Your task to perform on an android device: change notifications settings Image 0: 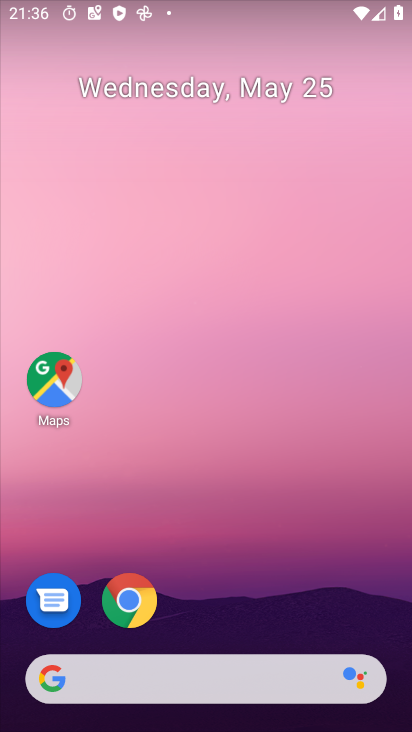
Step 0: drag from (327, 593) to (286, 160)
Your task to perform on an android device: change notifications settings Image 1: 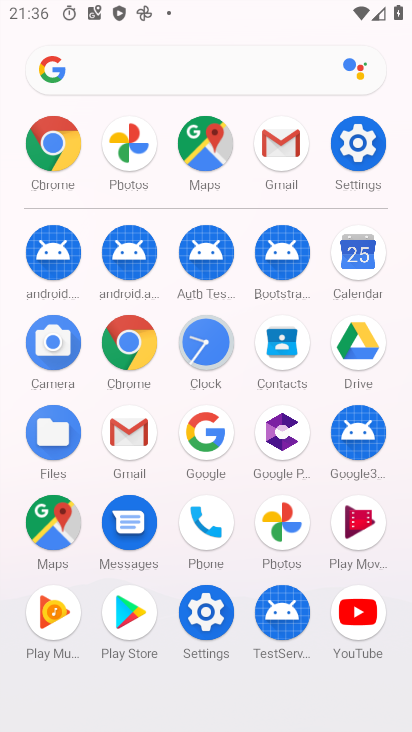
Step 1: click (191, 628)
Your task to perform on an android device: change notifications settings Image 2: 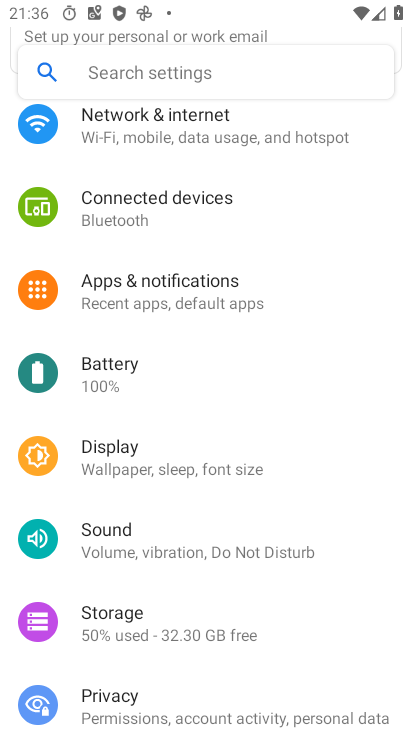
Step 2: drag from (305, 240) to (342, 650)
Your task to perform on an android device: change notifications settings Image 3: 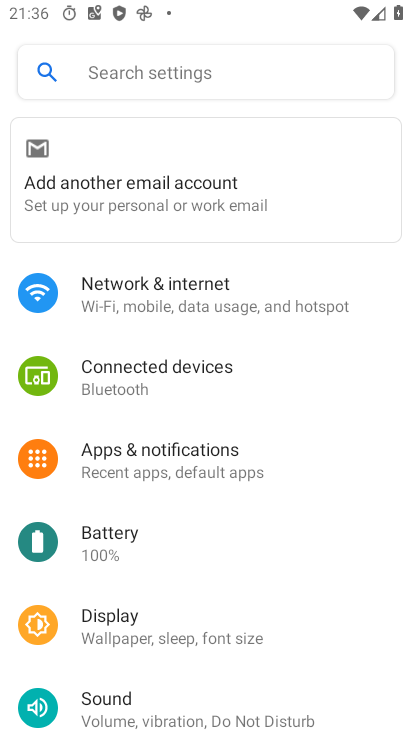
Step 3: click (249, 453)
Your task to perform on an android device: change notifications settings Image 4: 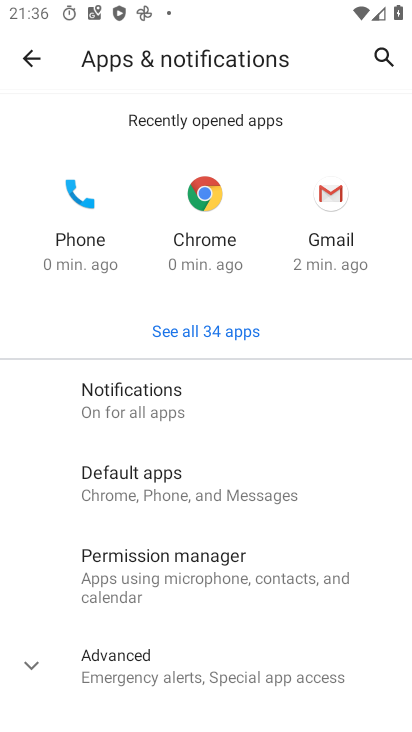
Step 4: click (187, 422)
Your task to perform on an android device: change notifications settings Image 5: 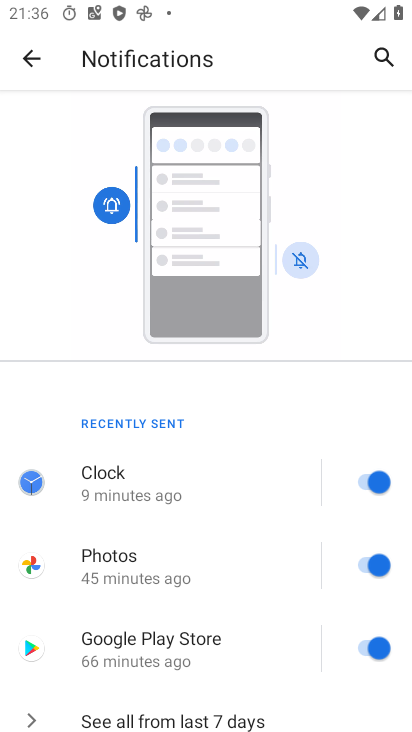
Step 5: click (376, 487)
Your task to perform on an android device: change notifications settings Image 6: 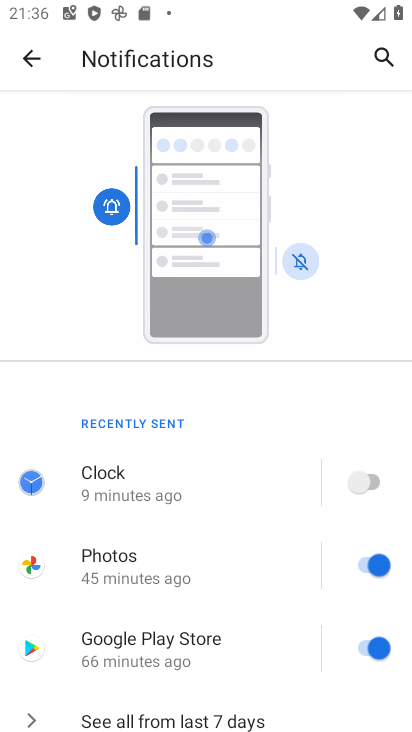
Step 6: task complete